Your task to perform on an android device: Open the map Image 0: 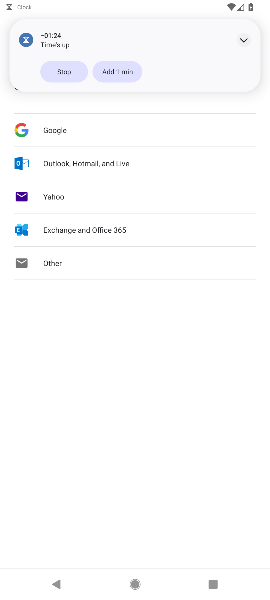
Step 0: press home button
Your task to perform on an android device: Open the map Image 1: 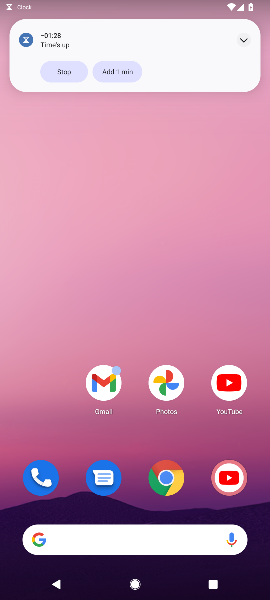
Step 1: drag from (137, 355) to (137, 95)
Your task to perform on an android device: Open the map Image 2: 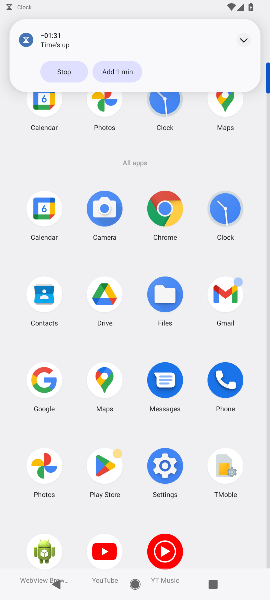
Step 2: click (108, 371)
Your task to perform on an android device: Open the map Image 3: 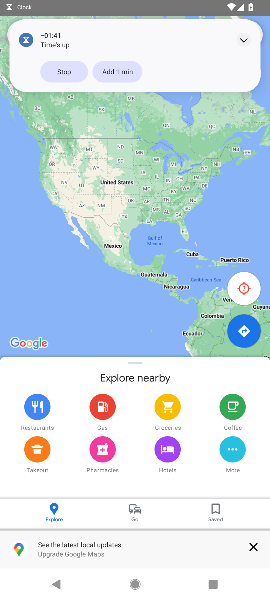
Step 3: task complete